Your task to perform on an android device: clear history in the chrome app Image 0: 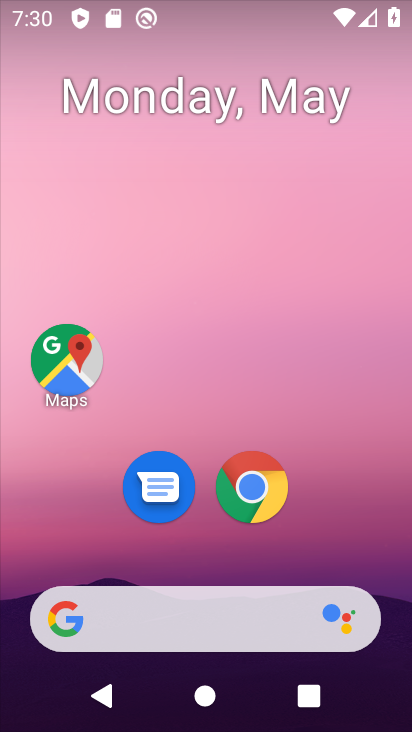
Step 0: drag from (367, 377) to (367, 219)
Your task to perform on an android device: clear history in the chrome app Image 1: 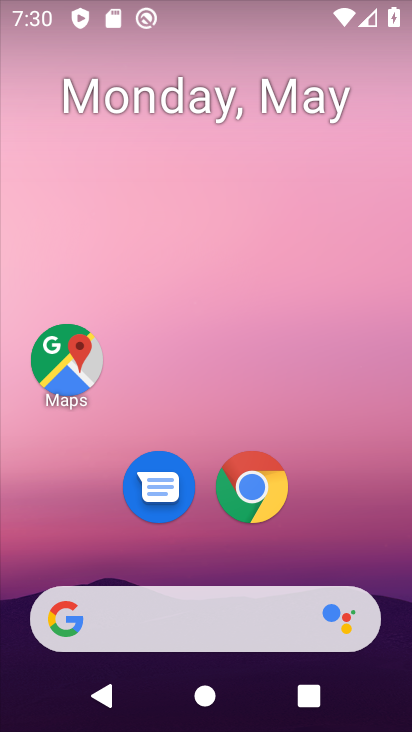
Step 1: drag from (376, 527) to (381, 153)
Your task to perform on an android device: clear history in the chrome app Image 2: 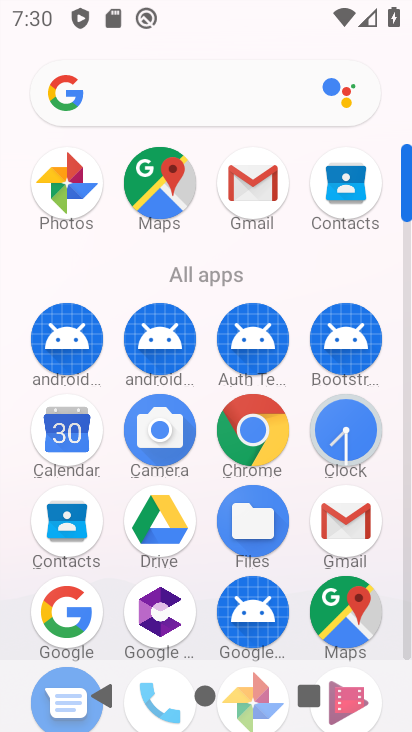
Step 2: click (268, 436)
Your task to perform on an android device: clear history in the chrome app Image 3: 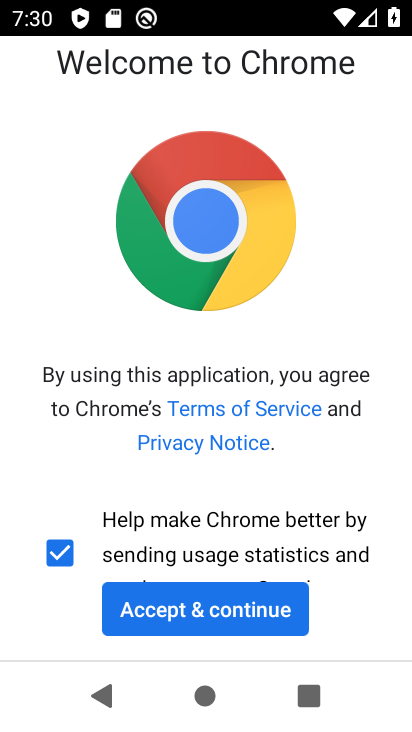
Step 3: click (261, 610)
Your task to perform on an android device: clear history in the chrome app Image 4: 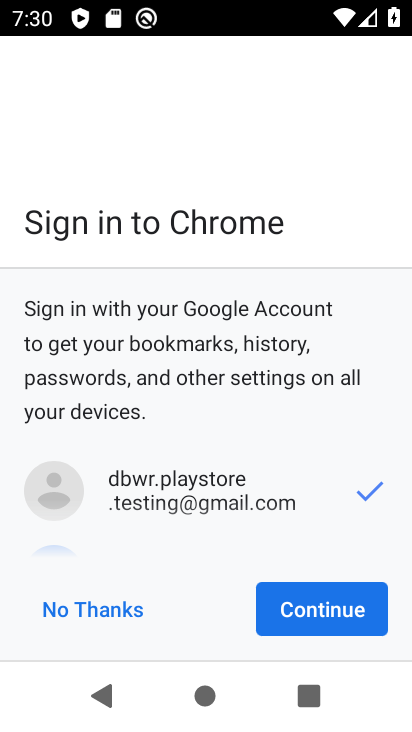
Step 4: click (344, 620)
Your task to perform on an android device: clear history in the chrome app Image 5: 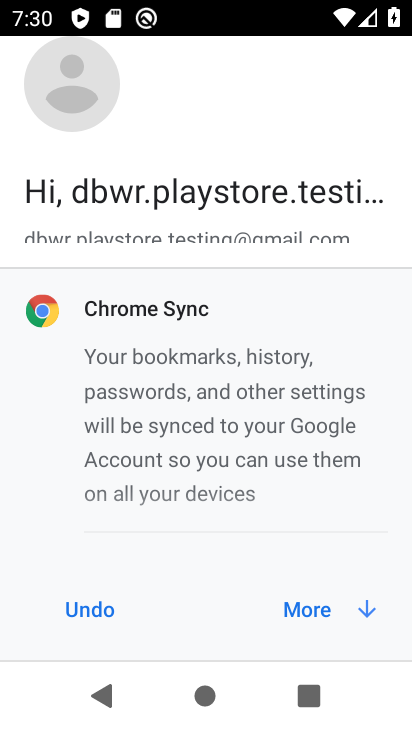
Step 5: click (342, 623)
Your task to perform on an android device: clear history in the chrome app Image 6: 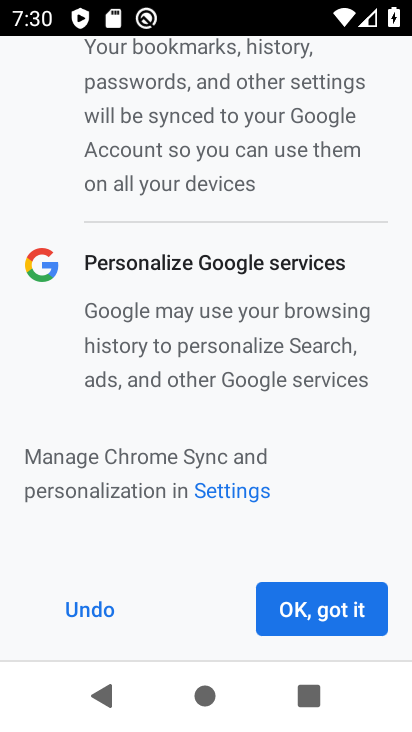
Step 6: click (342, 623)
Your task to perform on an android device: clear history in the chrome app Image 7: 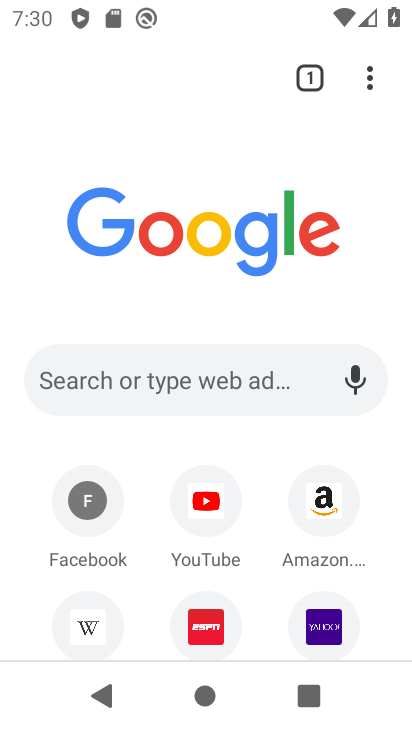
Step 7: click (369, 87)
Your task to perform on an android device: clear history in the chrome app Image 8: 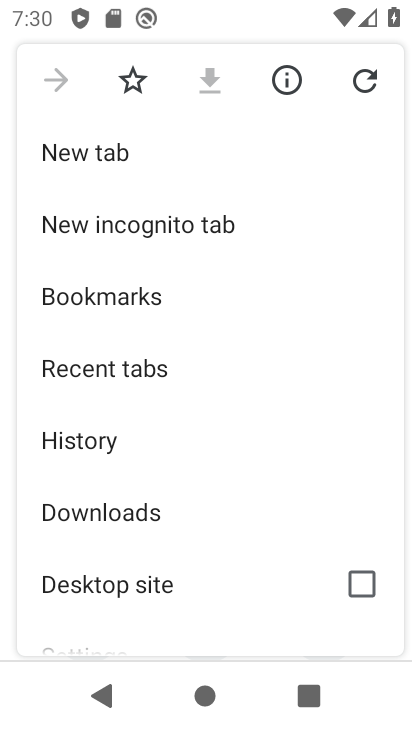
Step 8: click (111, 442)
Your task to perform on an android device: clear history in the chrome app Image 9: 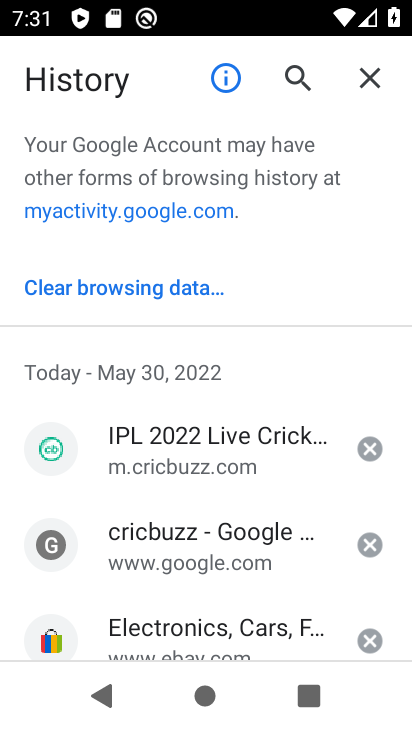
Step 9: click (149, 296)
Your task to perform on an android device: clear history in the chrome app Image 10: 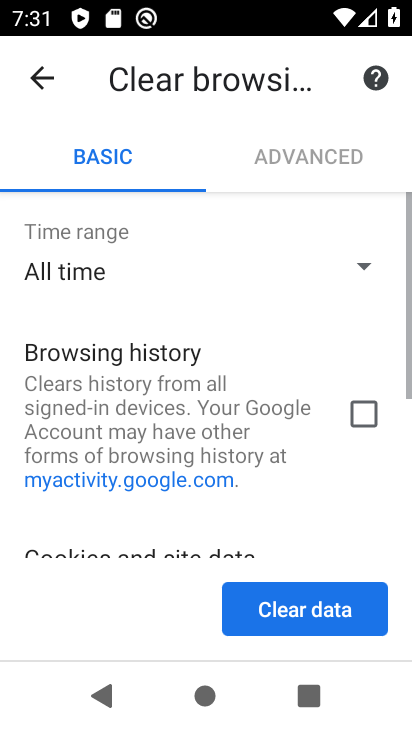
Step 10: click (377, 417)
Your task to perform on an android device: clear history in the chrome app Image 11: 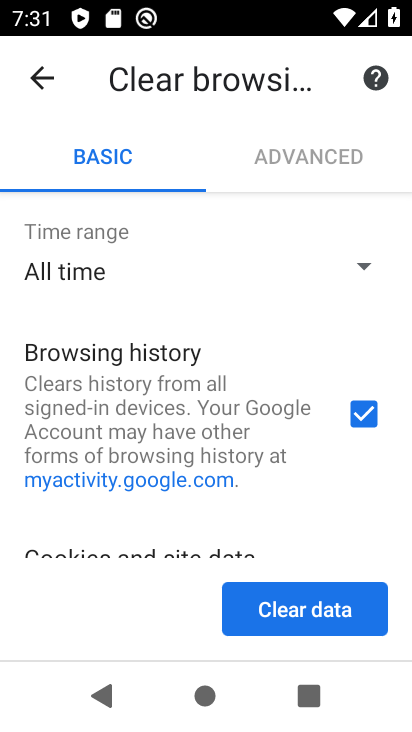
Step 11: click (317, 607)
Your task to perform on an android device: clear history in the chrome app Image 12: 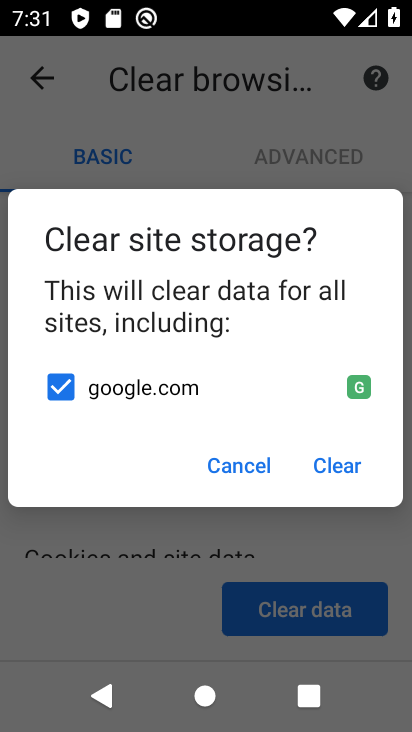
Step 12: click (360, 473)
Your task to perform on an android device: clear history in the chrome app Image 13: 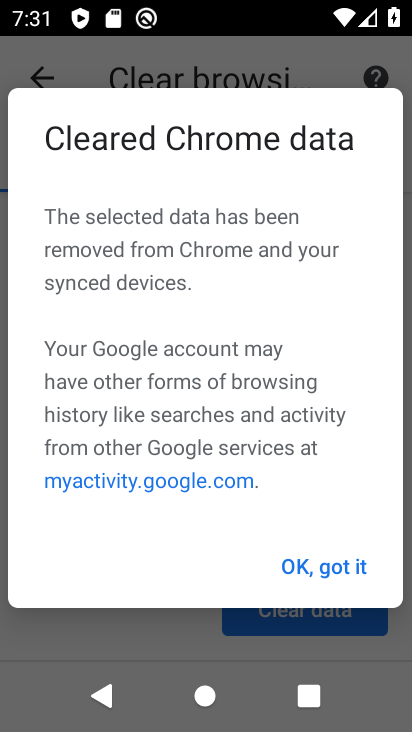
Step 13: click (323, 564)
Your task to perform on an android device: clear history in the chrome app Image 14: 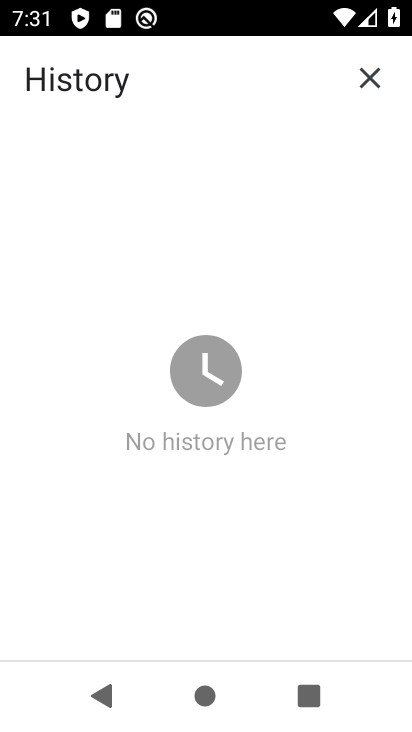
Step 14: task complete